Your task to perform on an android device: open app "YouTube Kids" Image 0: 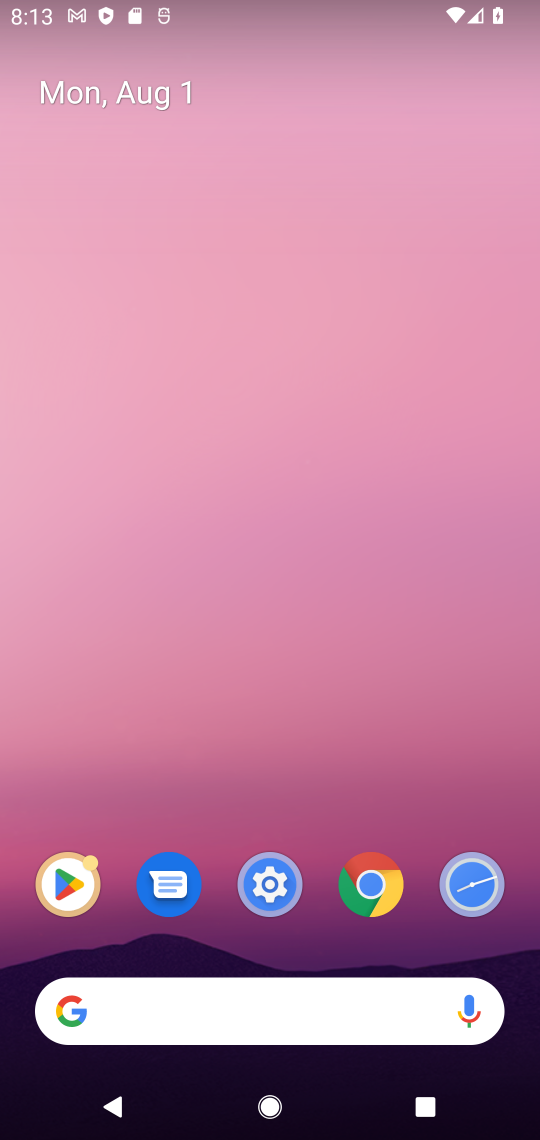
Step 0: drag from (327, 0) to (476, 10)
Your task to perform on an android device: open app "YouTube Kids" Image 1: 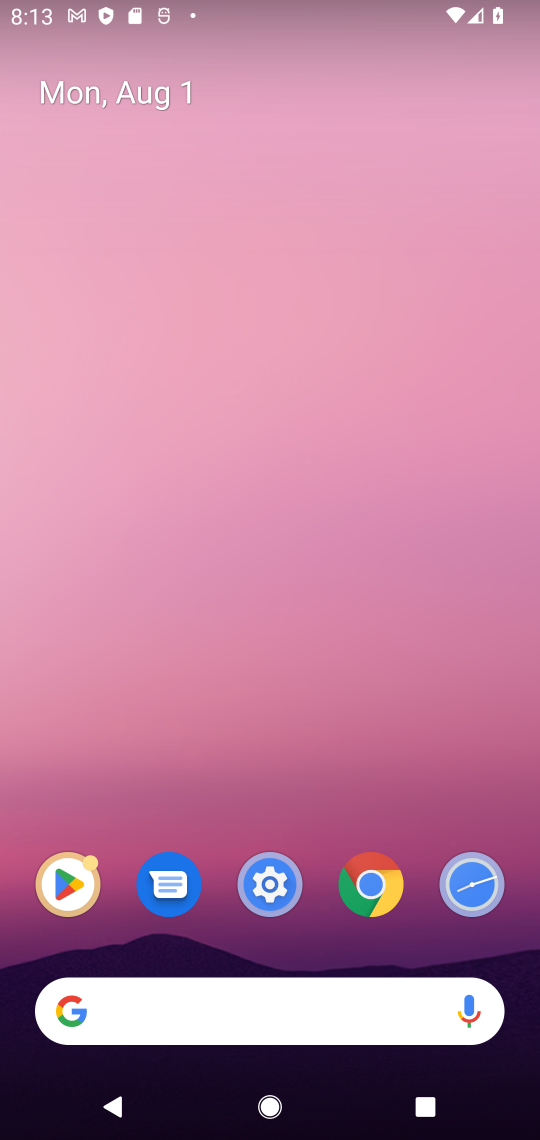
Step 1: task complete